Your task to perform on an android device: open app "Facebook Messenger" (install if not already installed) Image 0: 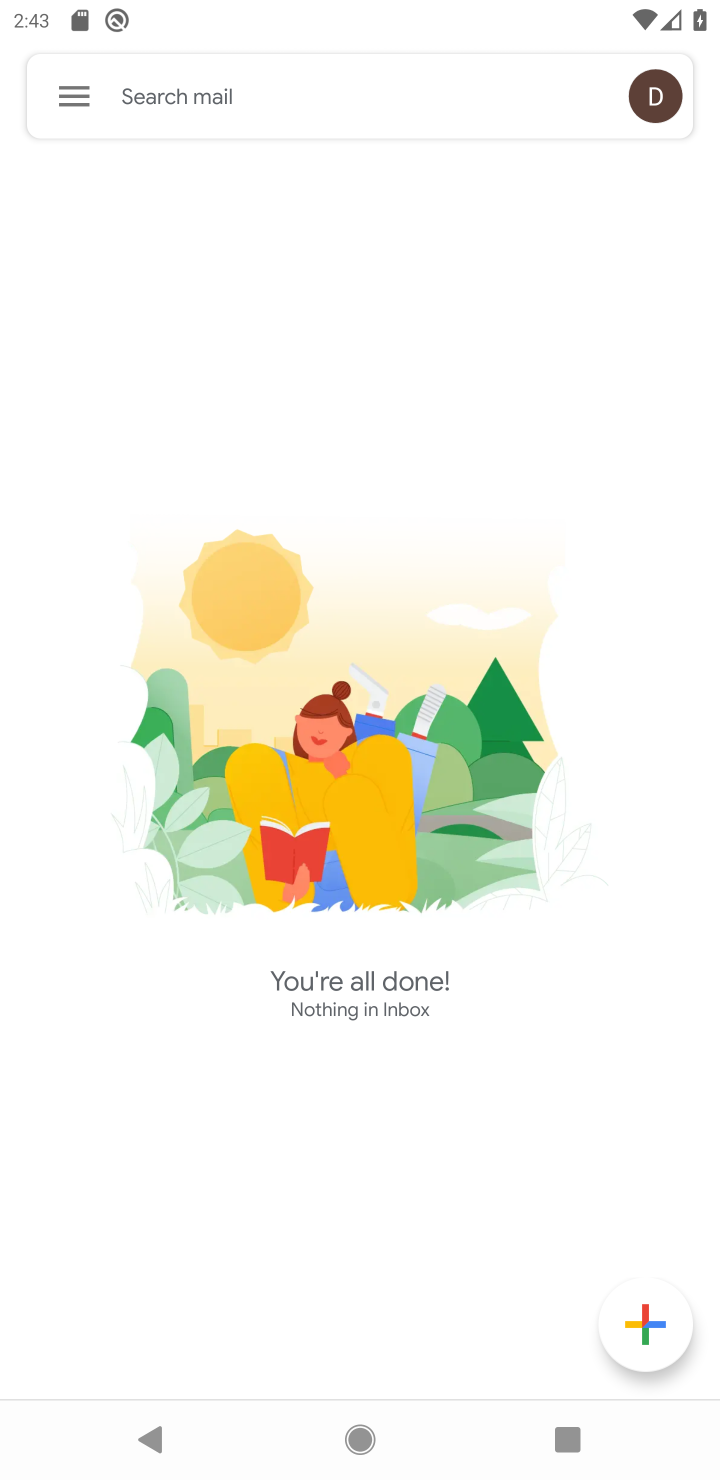
Step 0: press home button
Your task to perform on an android device: open app "Facebook Messenger" (install if not already installed) Image 1: 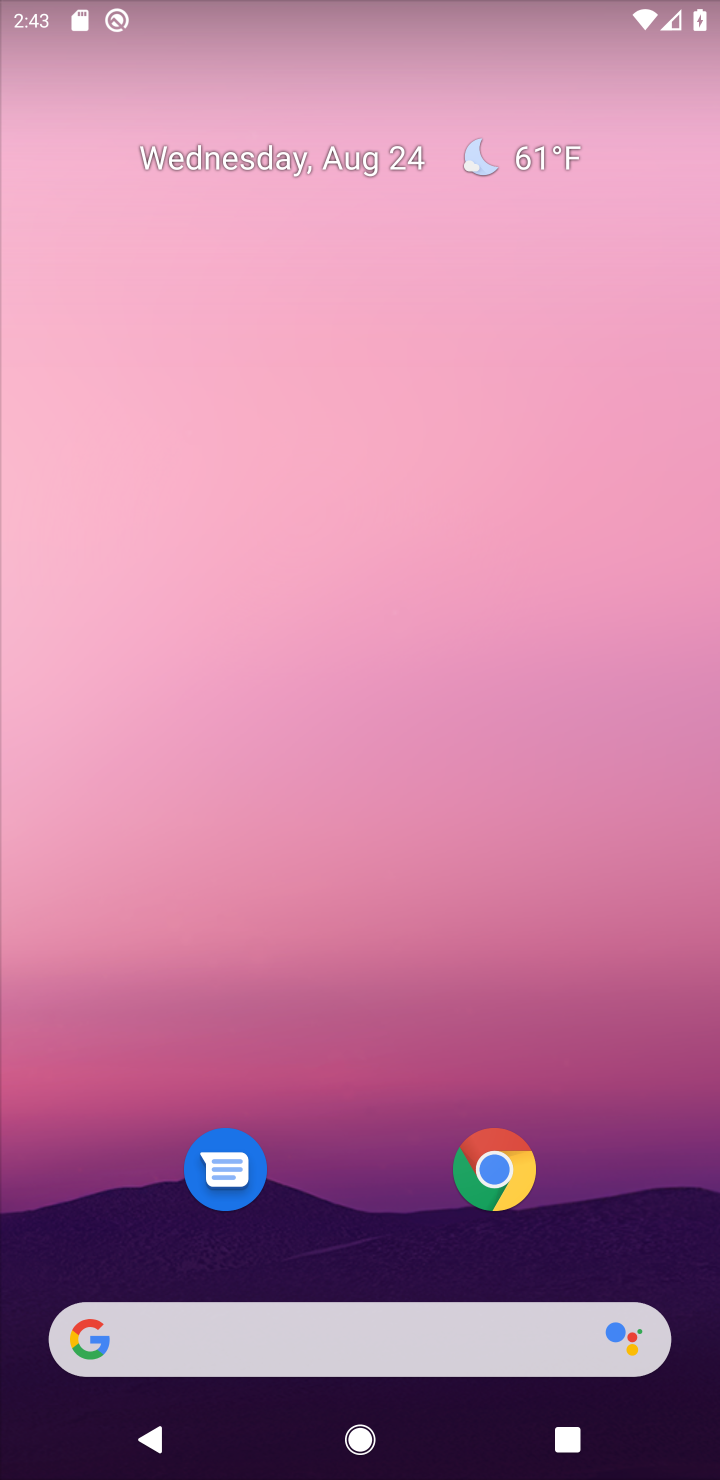
Step 1: drag from (374, 1230) to (405, 307)
Your task to perform on an android device: open app "Facebook Messenger" (install if not already installed) Image 2: 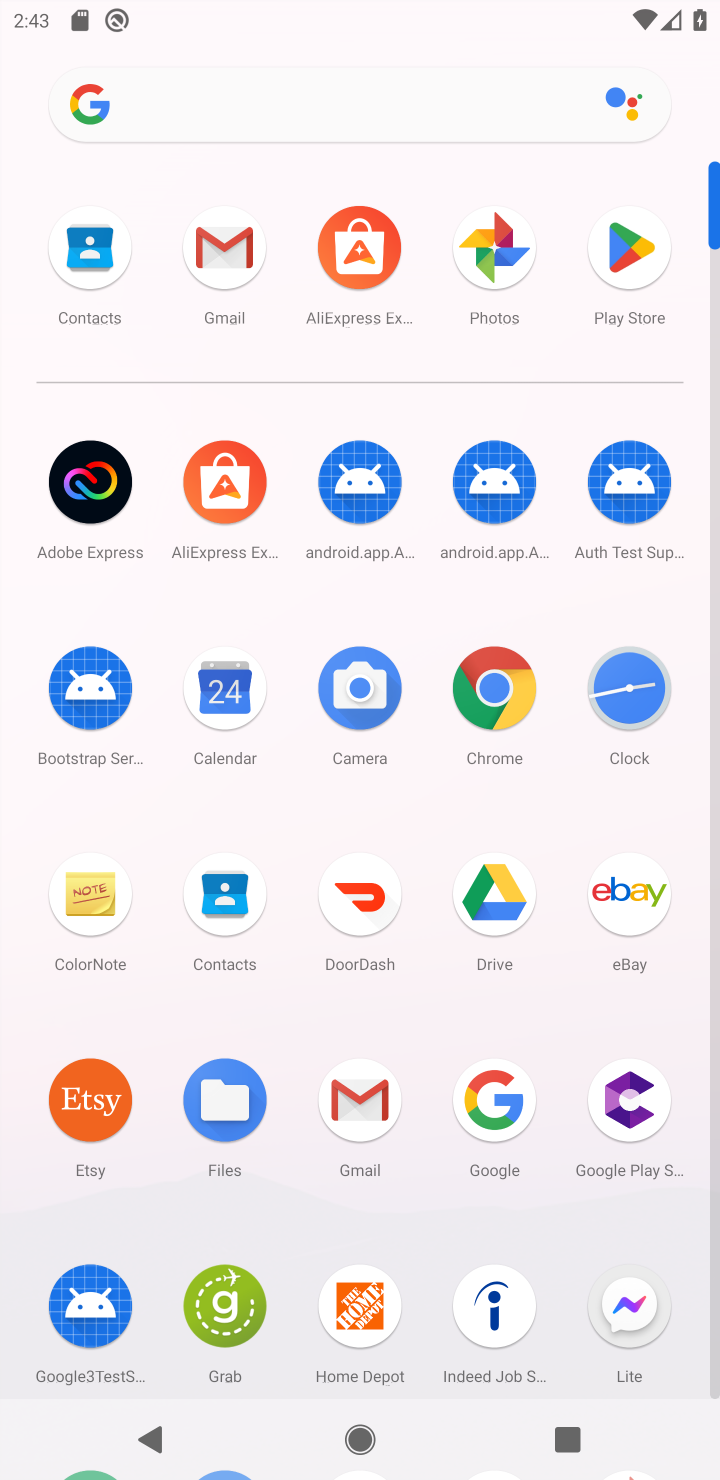
Step 2: click (619, 269)
Your task to perform on an android device: open app "Facebook Messenger" (install if not already installed) Image 3: 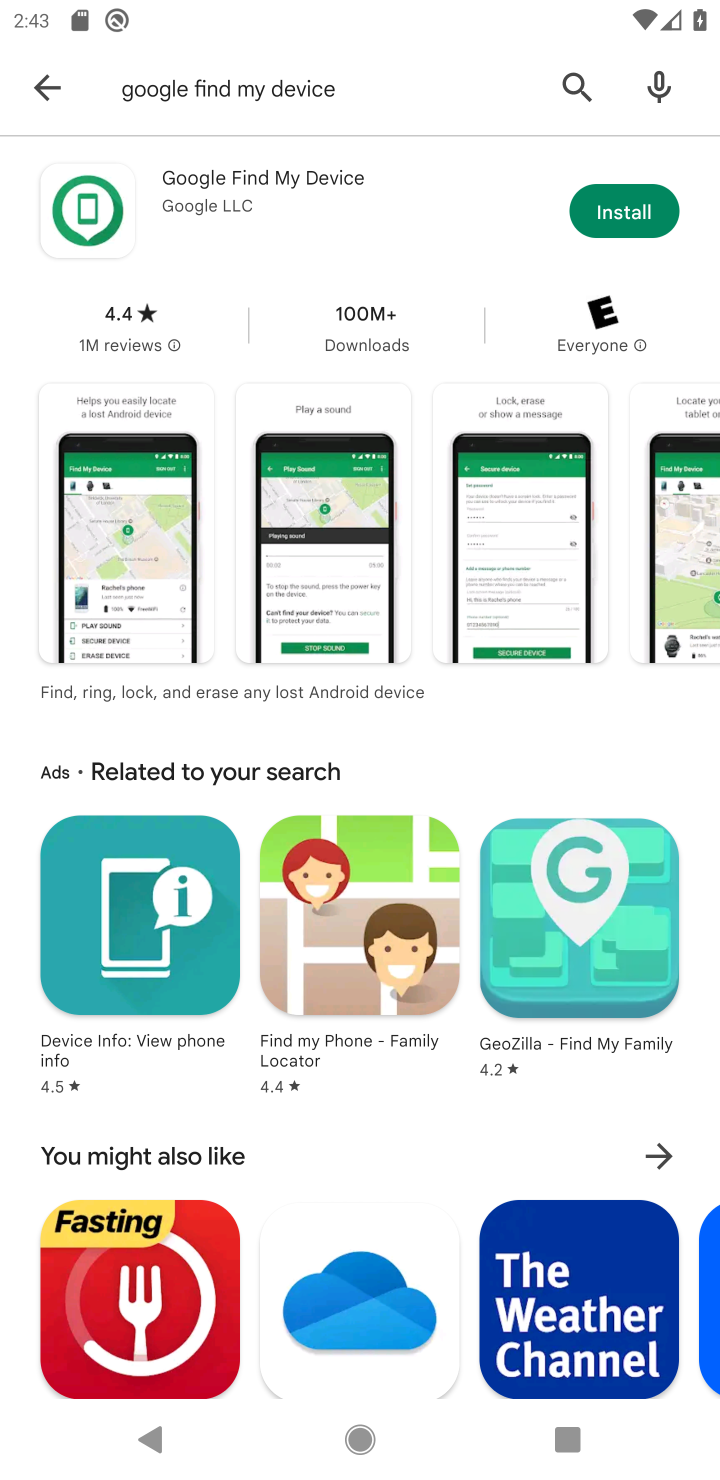
Step 3: click (51, 75)
Your task to perform on an android device: open app "Facebook Messenger" (install if not already installed) Image 4: 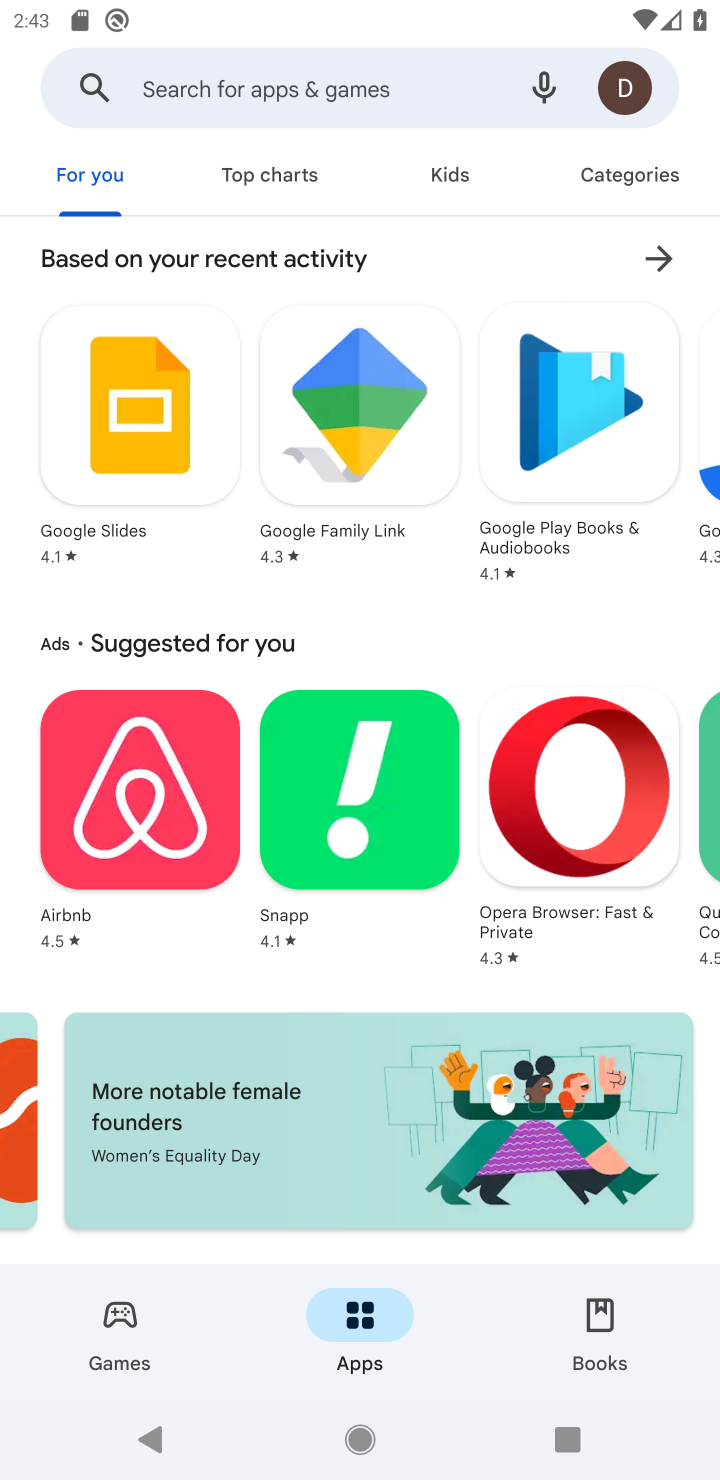
Step 4: click (283, 82)
Your task to perform on an android device: open app "Facebook Messenger" (install if not already installed) Image 5: 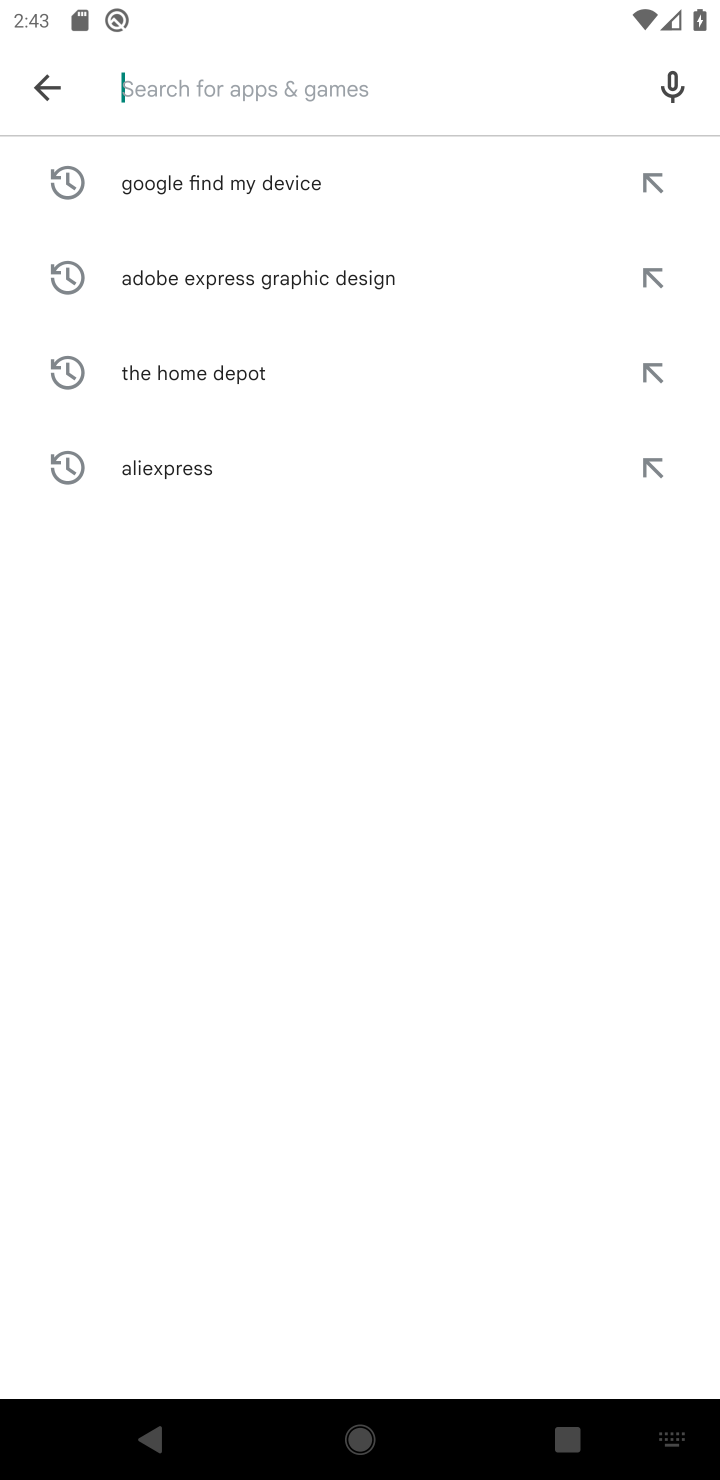
Step 5: type "Facebook Messenger"
Your task to perform on an android device: open app "Facebook Messenger" (install if not already installed) Image 6: 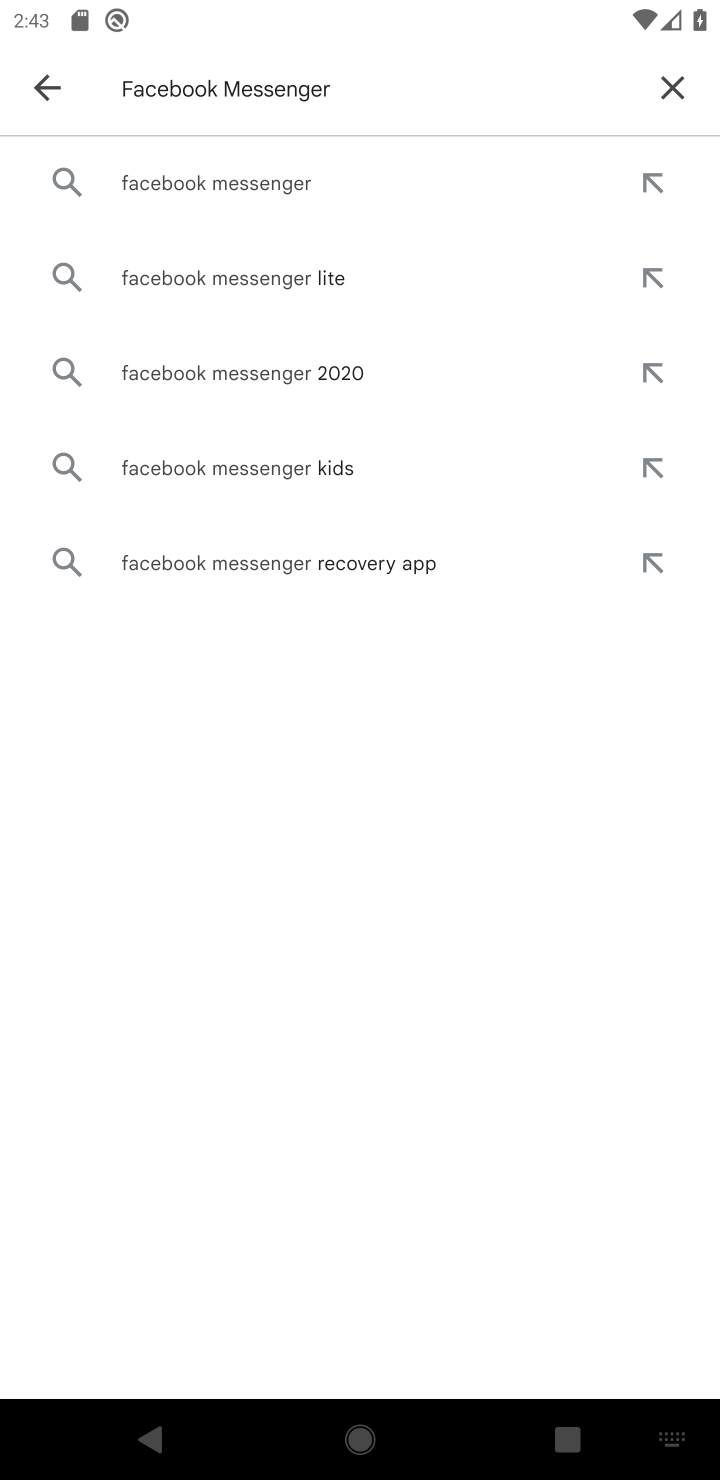
Step 6: click (323, 179)
Your task to perform on an android device: open app "Facebook Messenger" (install if not already installed) Image 7: 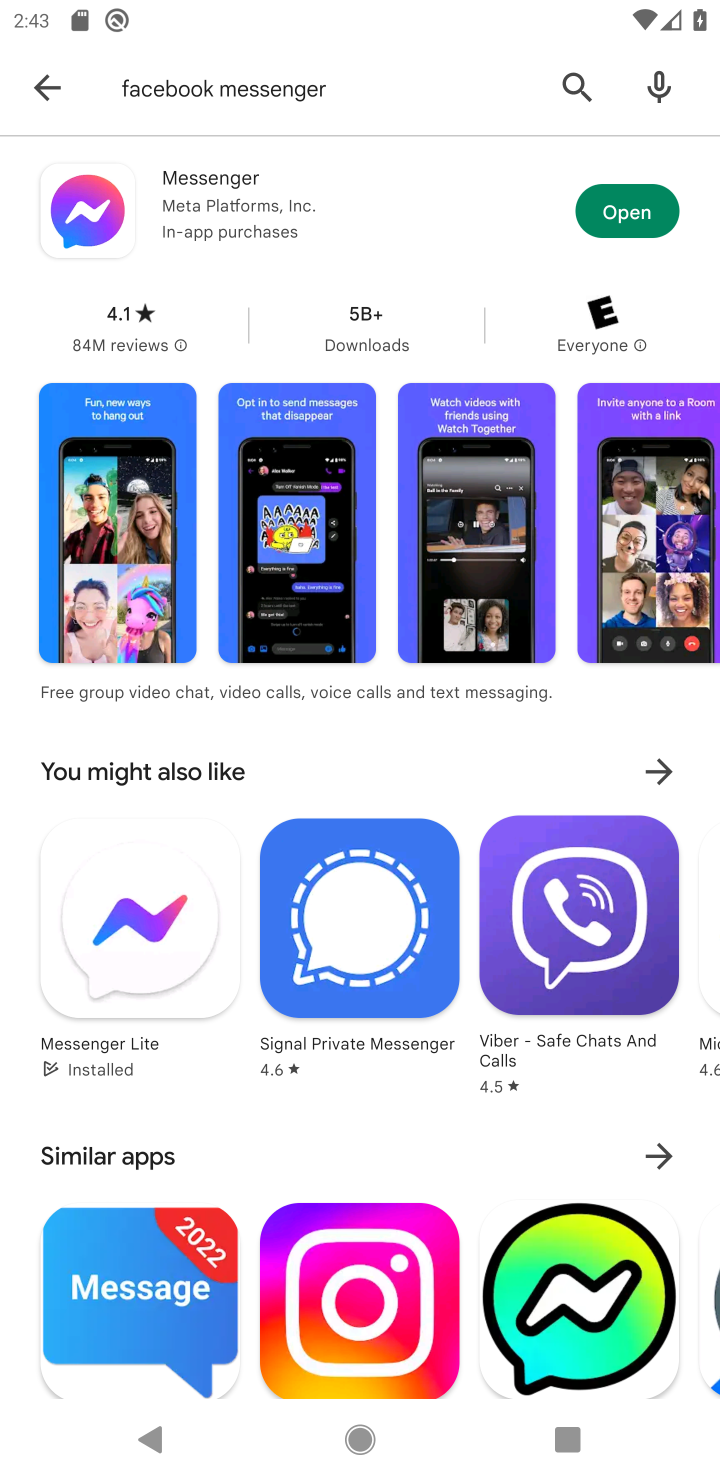
Step 7: click (595, 200)
Your task to perform on an android device: open app "Facebook Messenger" (install if not already installed) Image 8: 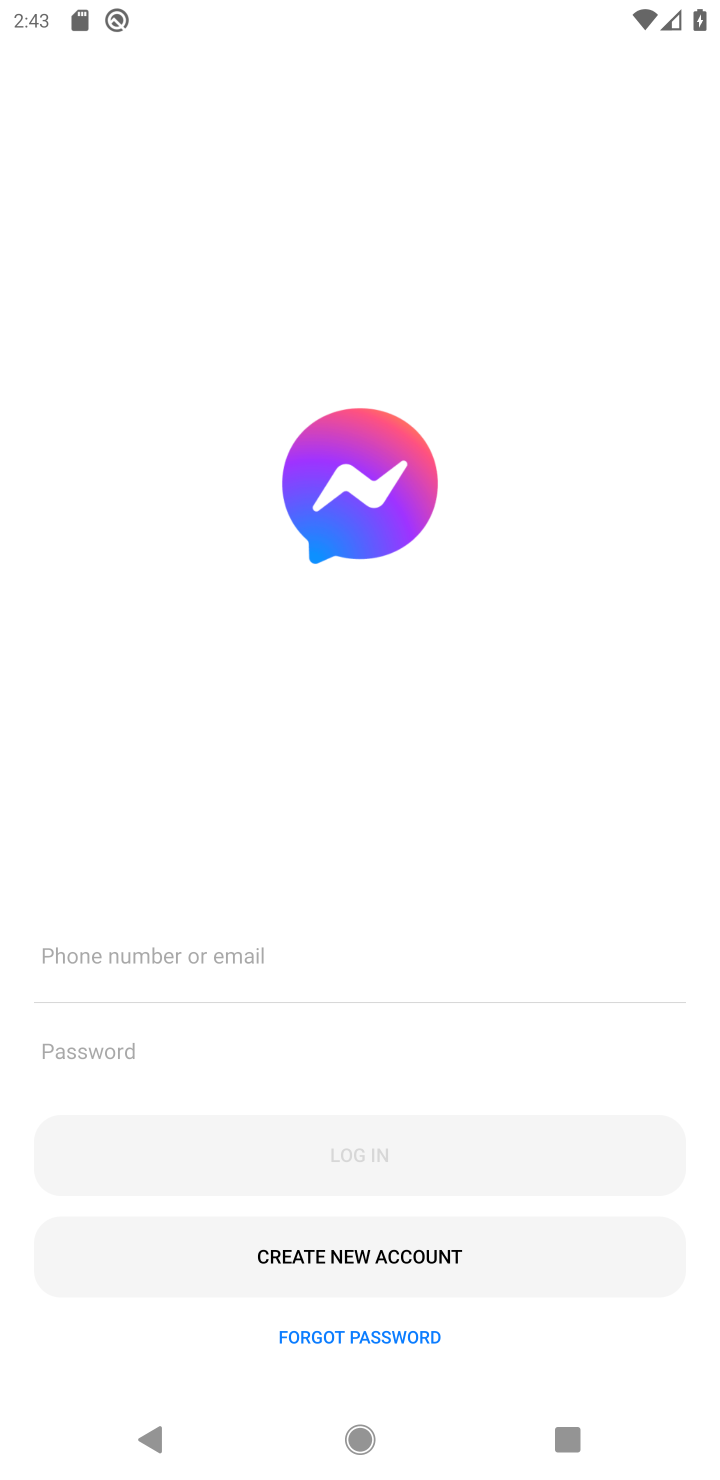
Step 8: task complete